Your task to perform on an android device: Search for hotels in Sydney Image 0: 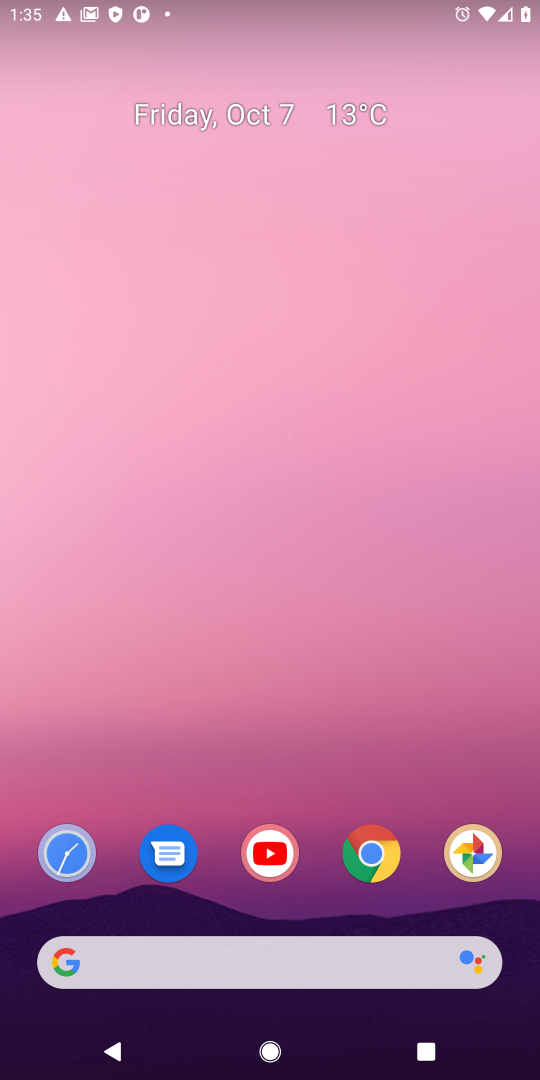
Step 0: click (249, 979)
Your task to perform on an android device: Search for hotels in Sydney Image 1: 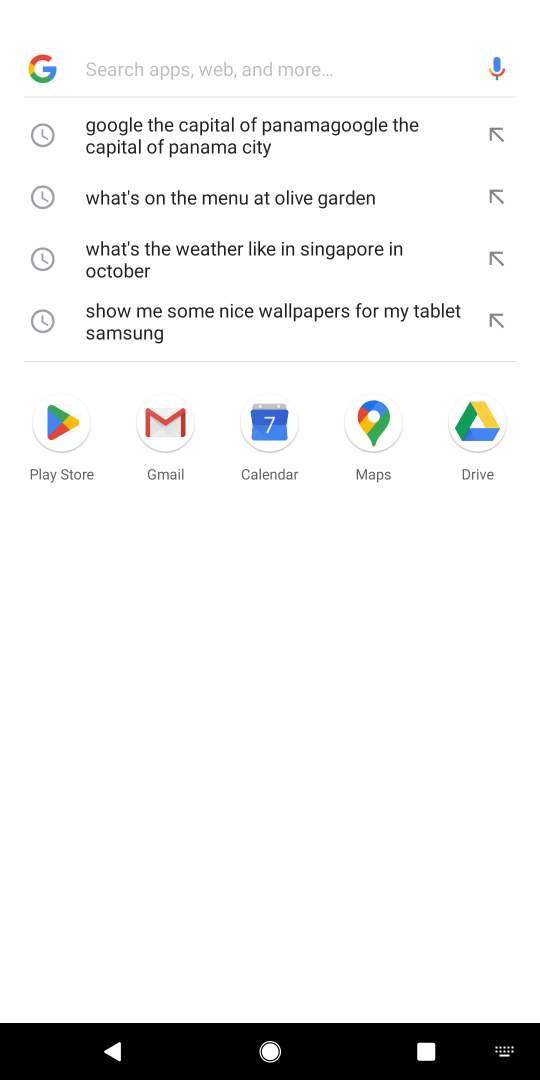
Step 1: type "Search for hotels in Sydney"
Your task to perform on an android device: Search for hotels in Sydney Image 2: 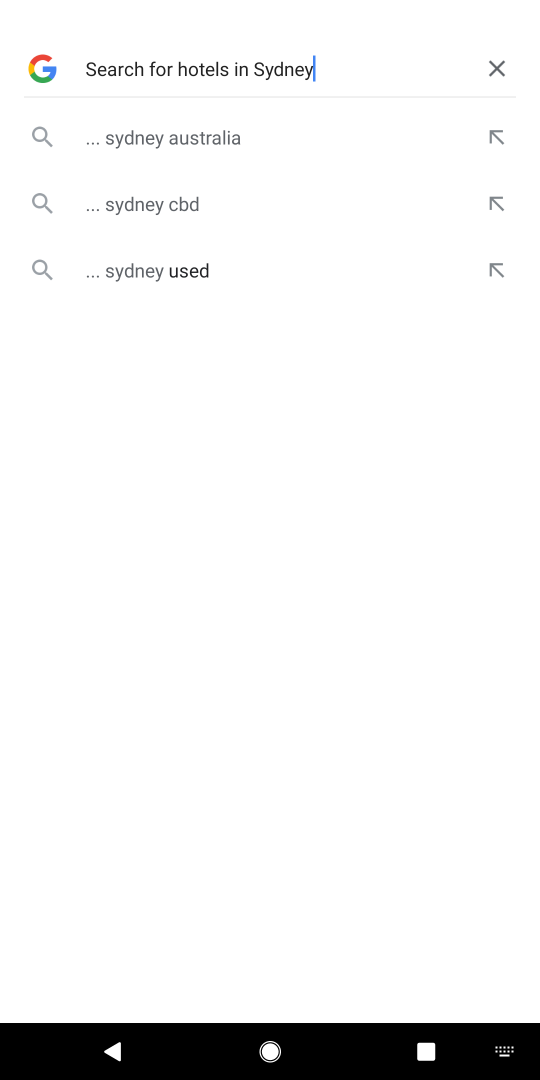
Step 2: click (295, 72)
Your task to perform on an android device: Search for hotels in Sydney Image 3: 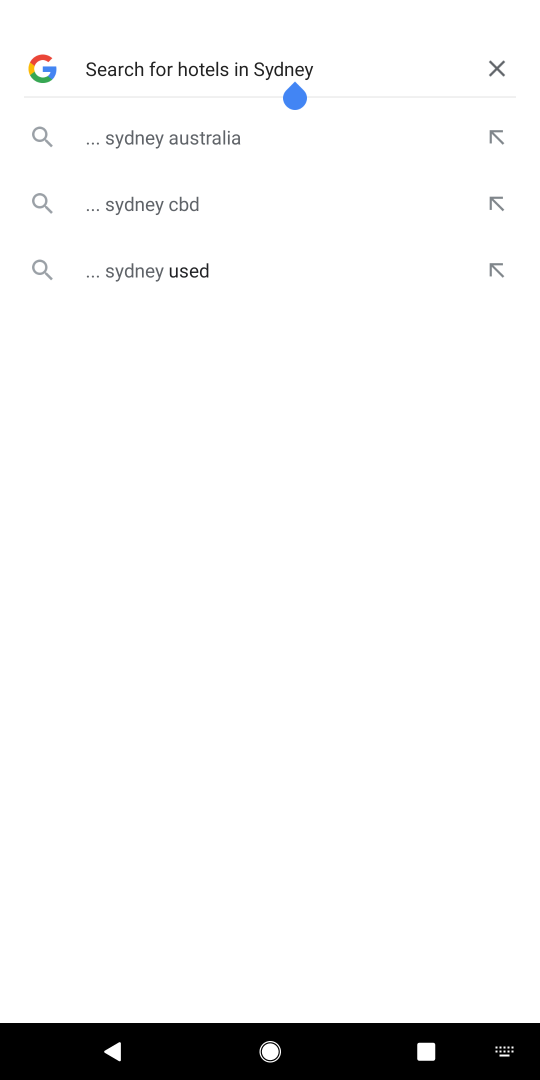
Step 3: click (327, 131)
Your task to perform on an android device: Search for hotels in Sydney Image 4: 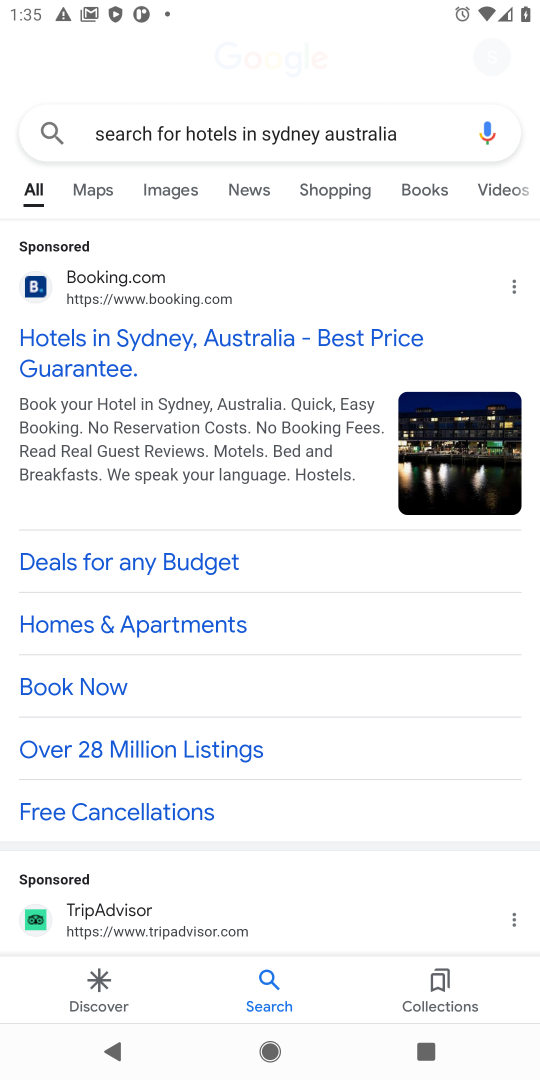
Step 4: task complete